Your task to perform on an android device: open sync settings in chrome Image 0: 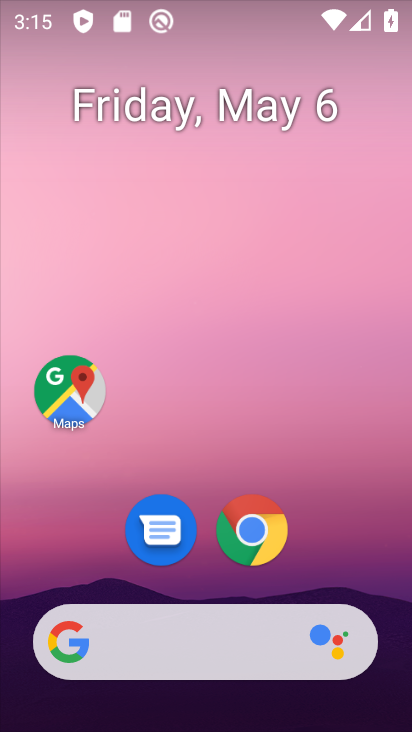
Step 0: drag from (257, 558) to (350, 334)
Your task to perform on an android device: open sync settings in chrome Image 1: 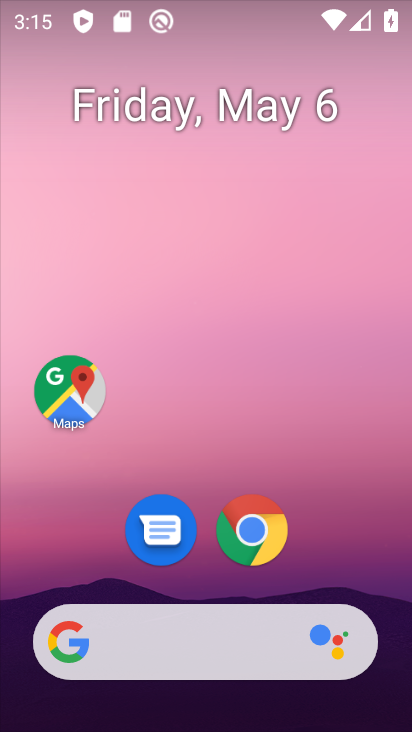
Step 1: click (232, 549)
Your task to perform on an android device: open sync settings in chrome Image 2: 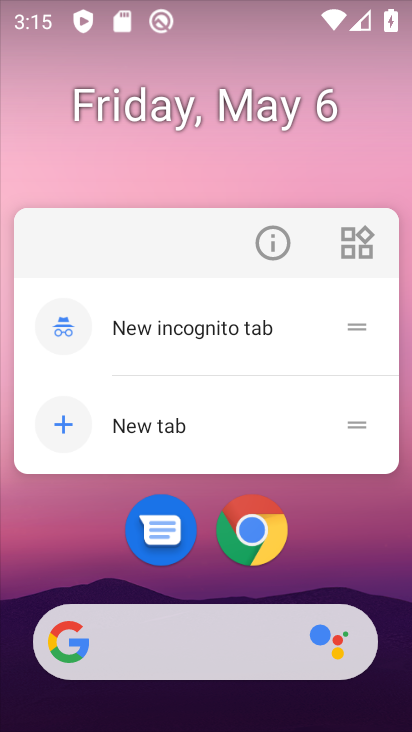
Step 2: click (232, 547)
Your task to perform on an android device: open sync settings in chrome Image 3: 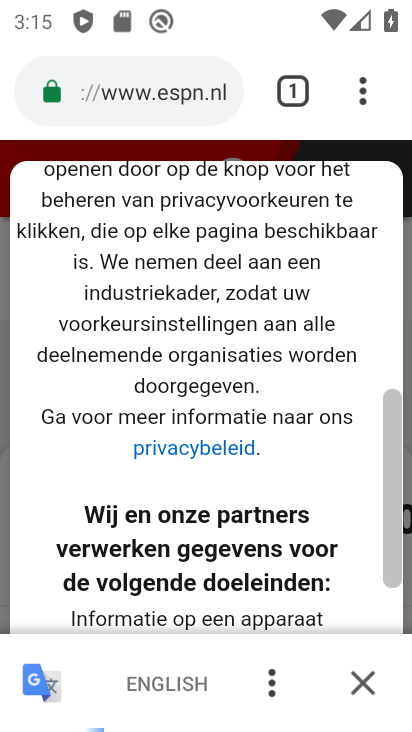
Step 3: click (364, 101)
Your task to perform on an android device: open sync settings in chrome Image 4: 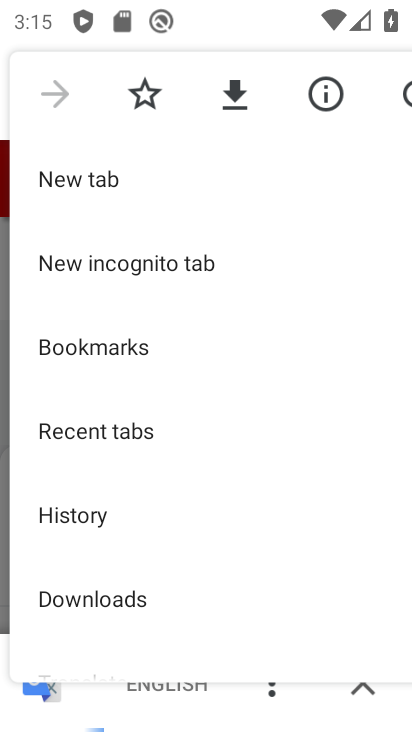
Step 4: drag from (218, 529) to (246, 287)
Your task to perform on an android device: open sync settings in chrome Image 5: 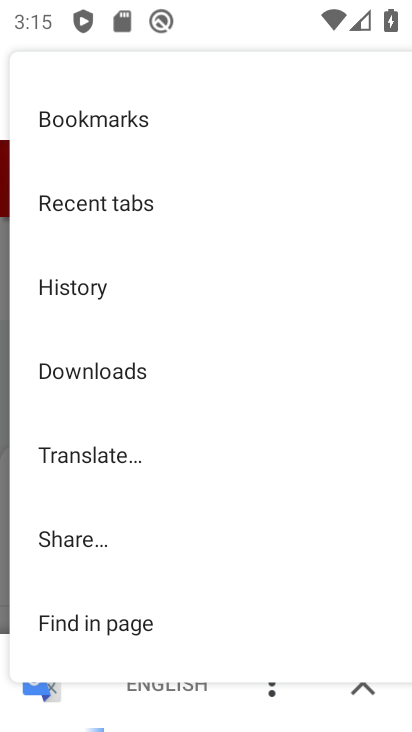
Step 5: drag from (179, 556) to (208, 112)
Your task to perform on an android device: open sync settings in chrome Image 6: 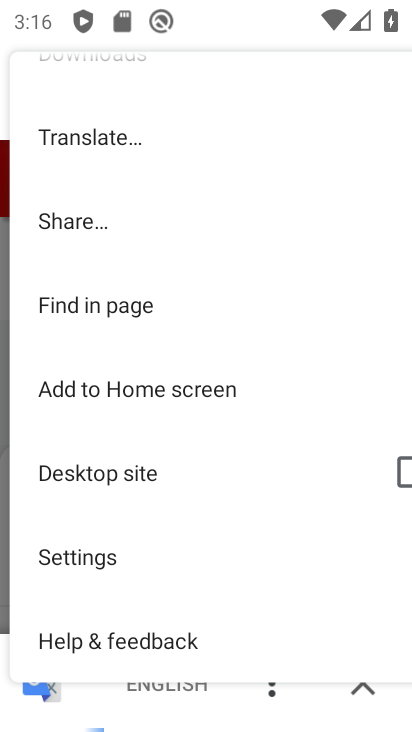
Step 6: click (162, 565)
Your task to perform on an android device: open sync settings in chrome Image 7: 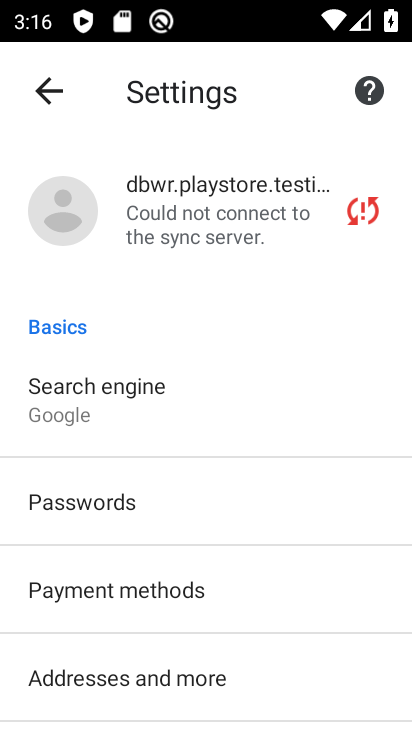
Step 7: click (221, 189)
Your task to perform on an android device: open sync settings in chrome Image 8: 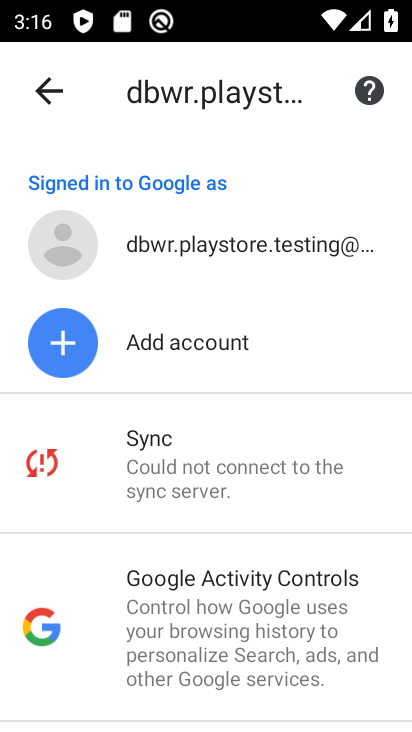
Step 8: click (188, 469)
Your task to perform on an android device: open sync settings in chrome Image 9: 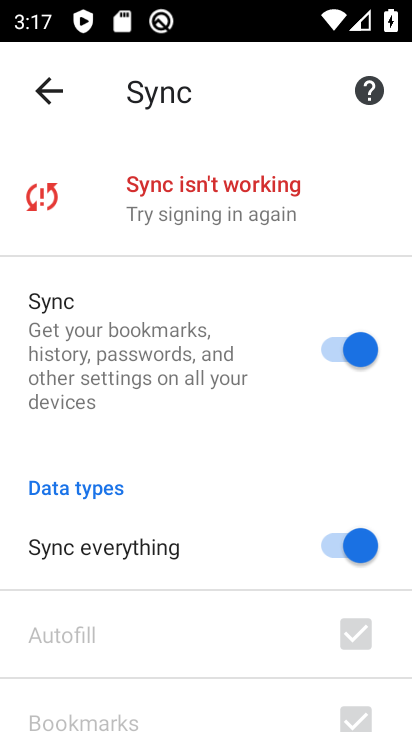
Step 9: task complete